Your task to perform on an android device: turn on the 24-hour format for clock Image 0: 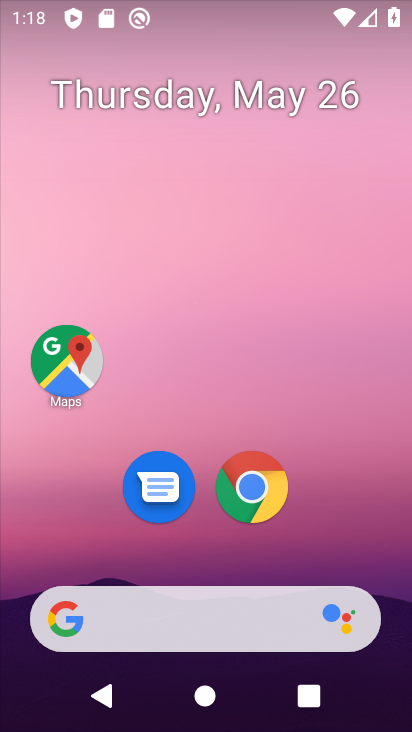
Step 0: drag from (185, 604) to (253, 39)
Your task to perform on an android device: turn on the 24-hour format for clock Image 1: 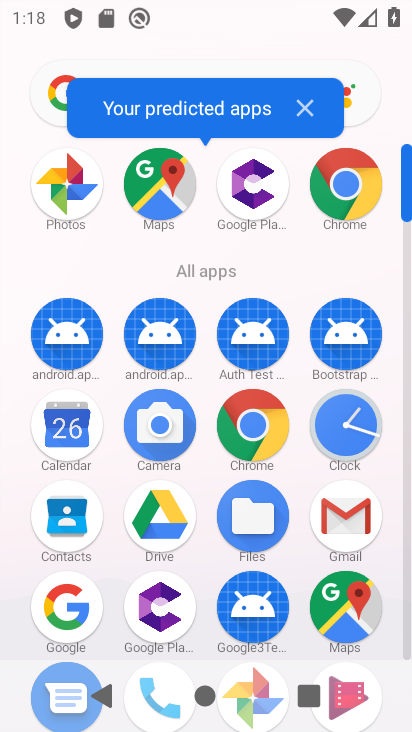
Step 1: drag from (226, 340) to (268, 40)
Your task to perform on an android device: turn on the 24-hour format for clock Image 2: 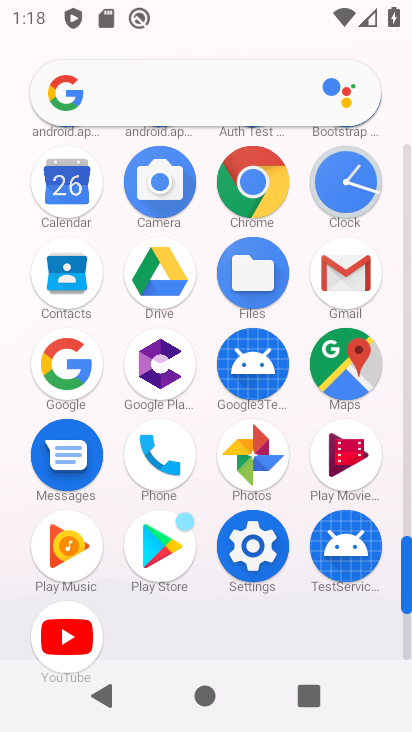
Step 2: click (262, 572)
Your task to perform on an android device: turn on the 24-hour format for clock Image 3: 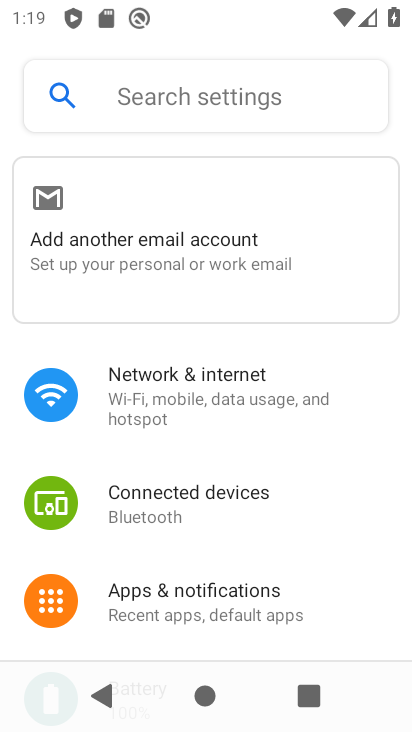
Step 3: drag from (167, 463) to (195, 3)
Your task to perform on an android device: turn on the 24-hour format for clock Image 4: 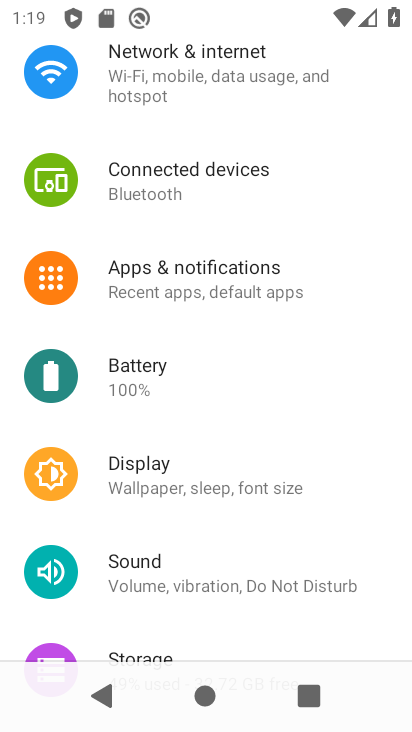
Step 4: drag from (166, 609) to (171, 60)
Your task to perform on an android device: turn on the 24-hour format for clock Image 5: 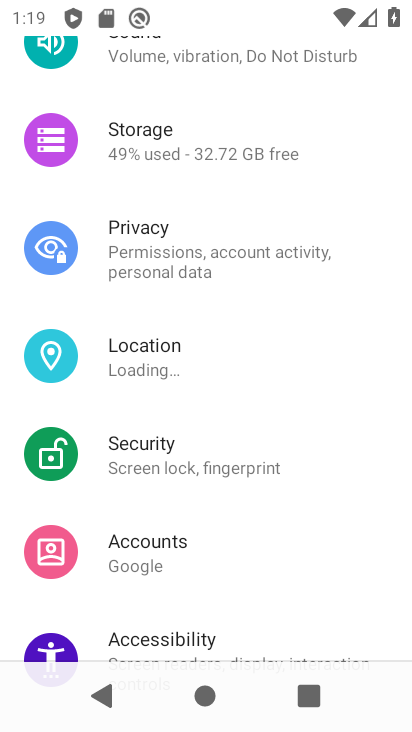
Step 5: drag from (172, 637) to (211, 170)
Your task to perform on an android device: turn on the 24-hour format for clock Image 6: 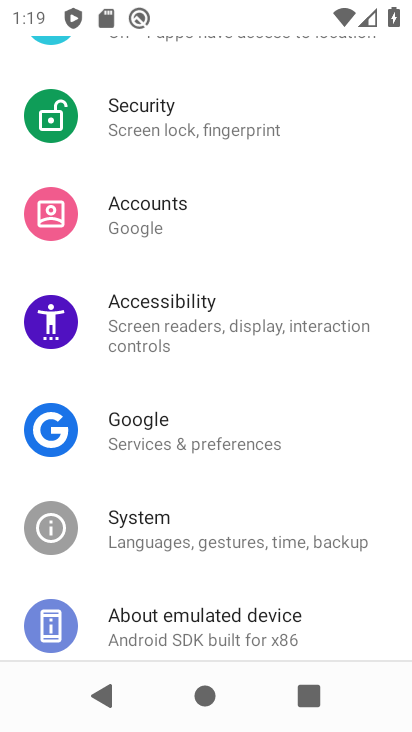
Step 6: click (147, 530)
Your task to perform on an android device: turn on the 24-hour format for clock Image 7: 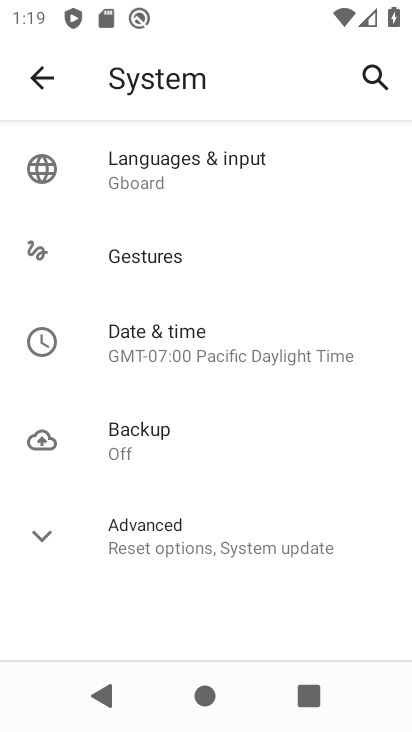
Step 7: click (163, 351)
Your task to perform on an android device: turn on the 24-hour format for clock Image 8: 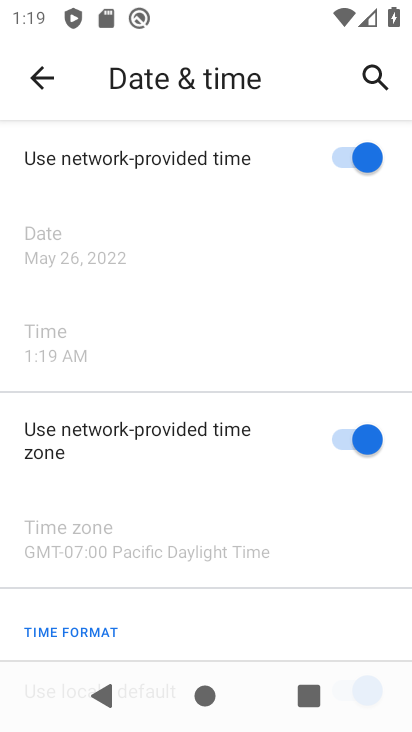
Step 8: drag from (260, 573) to (297, 47)
Your task to perform on an android device: turn on the 24-hour format for clock Image 9: 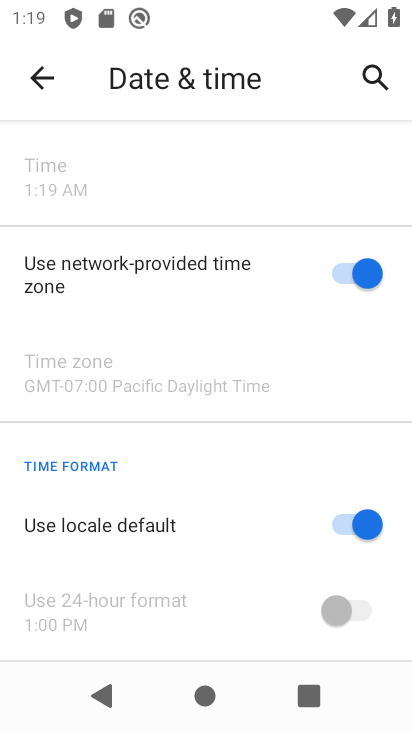
Step 9: click (350, 537)
Your task to perform on an android device: turn on the 24-hour format for clock Image 10: 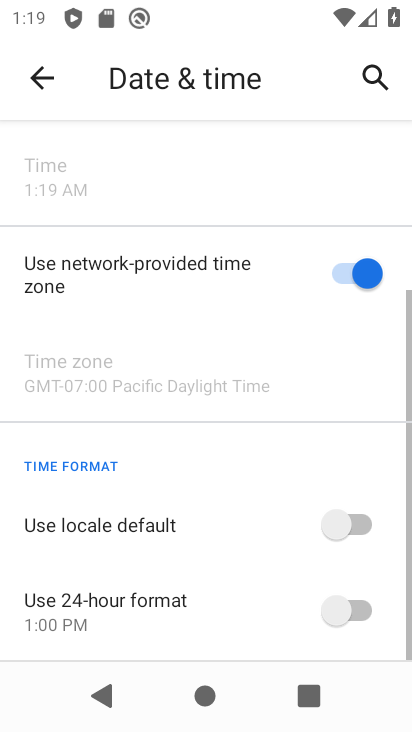
Step 10: click (343, 607)
Your task to perform on an android device: turn on the 24-hour format for clock Image 11: 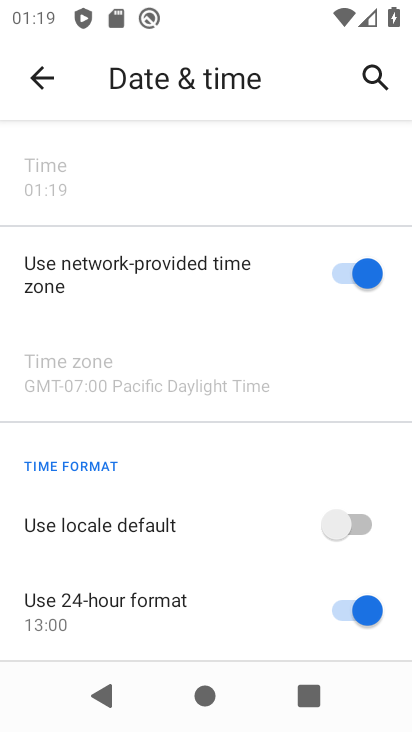
Step 11: task complete